Your task to perform on an android device: Is it going to rain tomorrow? Image 0: 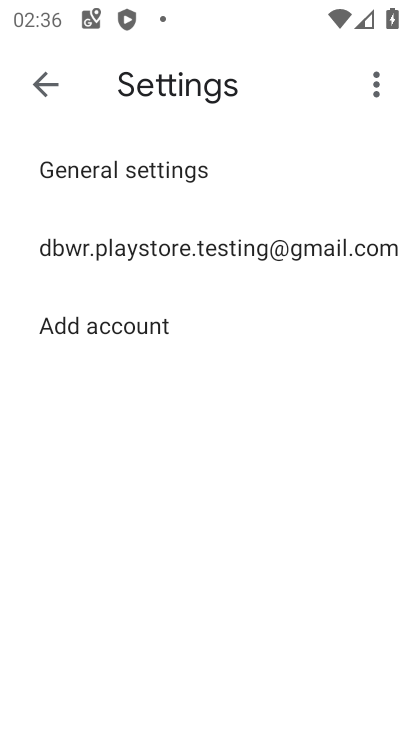
Step 0: press home button
Your task to perform on an android device: Is it going to rain tomorrow? Image 1: 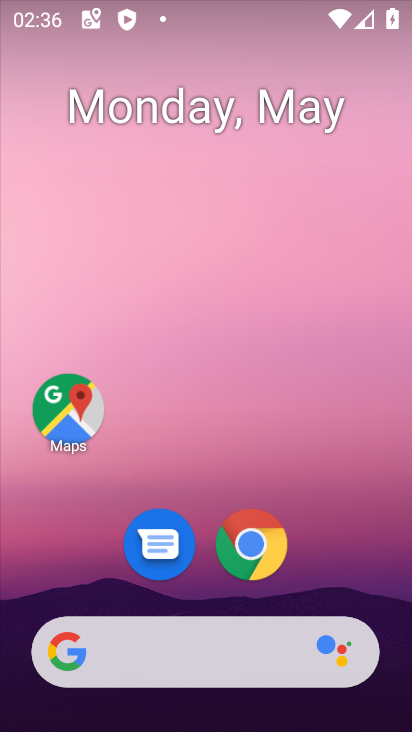
Step 1: click (229, 640)
Your task to perform on an android device: Is it going to rain tomorrow? Image 2: 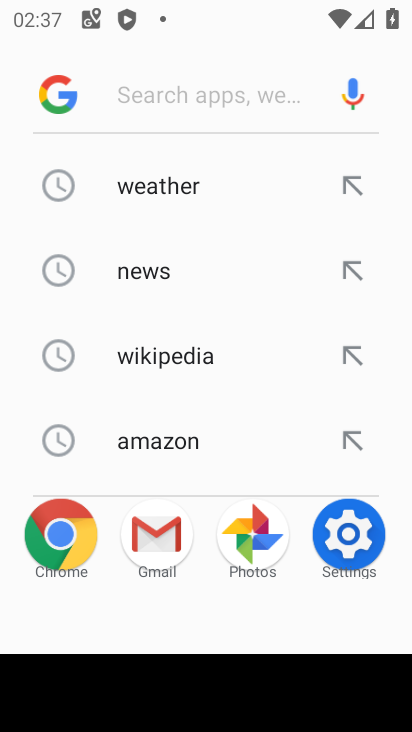
Step 2: click (192, 198)
Your task to perform on an android device: Is it going to rain tomorrow? Image 3: 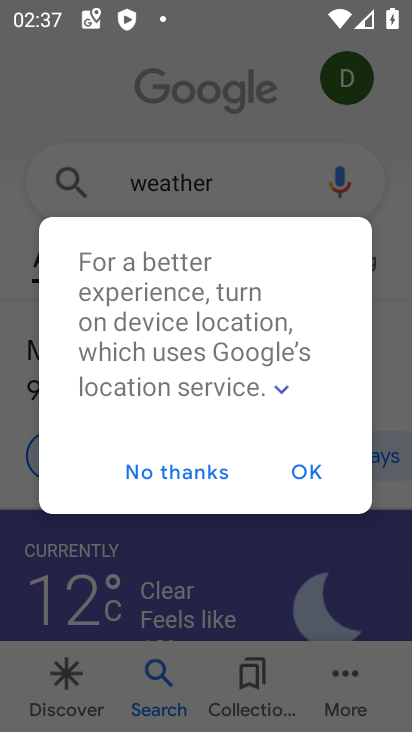
Step 3: click (181, 454)
Your task to perform on an android device: Is it going to rain tomorrow? Image 4: 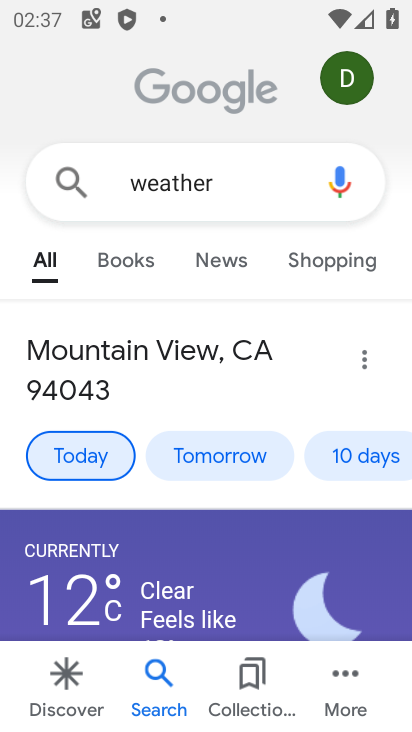
Step 4: click (245, 460)
Your task to perform on an android device: Is it going to rain tomorrow? Image 5: 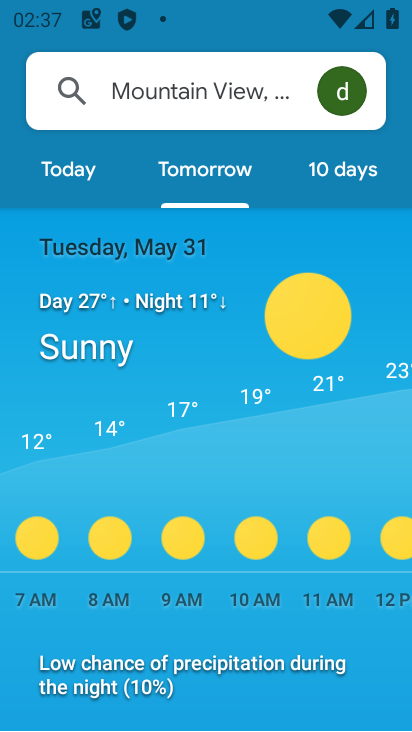
Step 5: task complete